Your task to perform on an android device: open wifi settings Image 0: 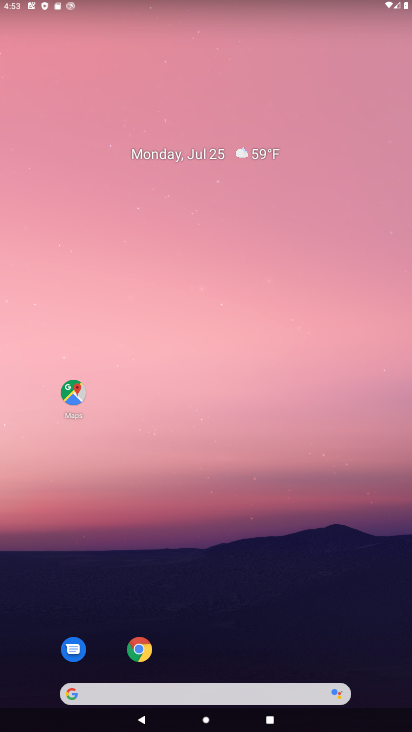
Step 0: drag from (306, 624) to (0, 10)
Your task to perform on an android device: open wifi settings Image 1: 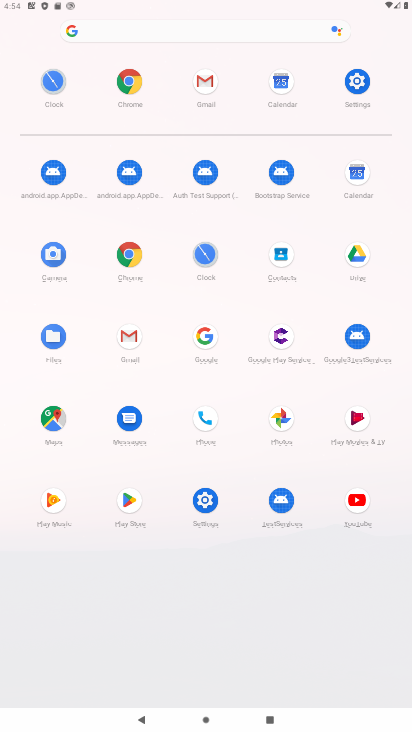
Step 1: click (366, 77)
Your task to perform on an android device: open wifi settings Image 2: 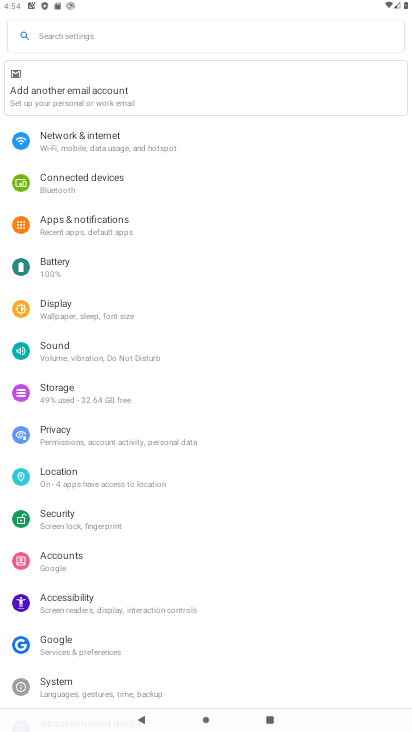
Step 2: click (67, 139)
Your task to perform on an android device: open wifi settings Image 3: 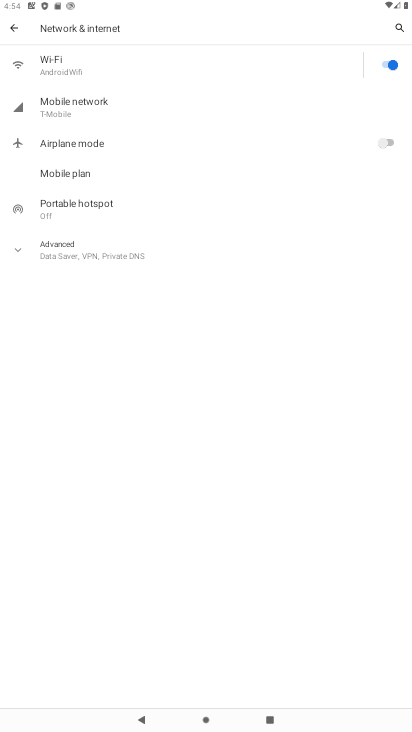
Step 3: click (118, 55)
Your task to perform on an android device: open wifi settings Image 4: 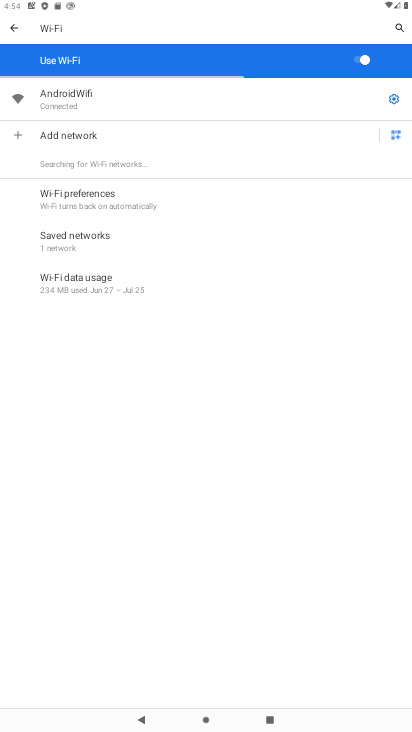
Step 4: task complete